Your task to perform on an android device: Open maps Image 0: 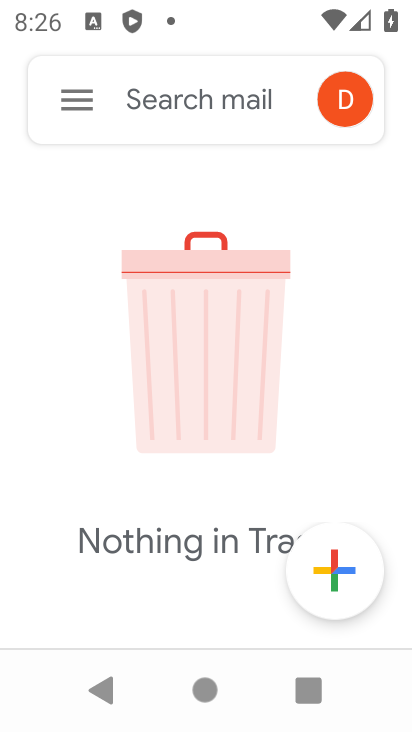
Step 0: press home button
Your task to perform on an android device: Open maps Image 1: 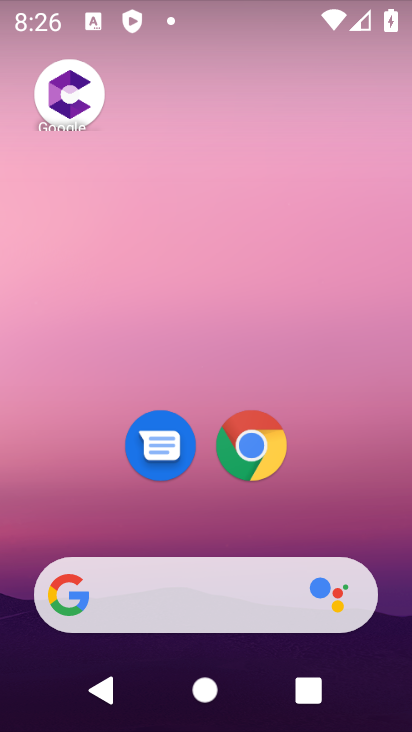
Step 1: drag from (45, 577) to (225, 155)
Your task to perform on an android device: Open maps Image 2: 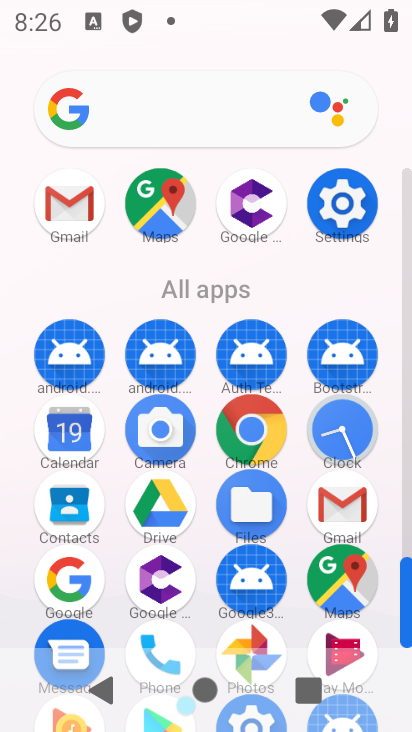
Step 2: click (148, 200)
Your task to perform on an android device: Open maps Image 3: 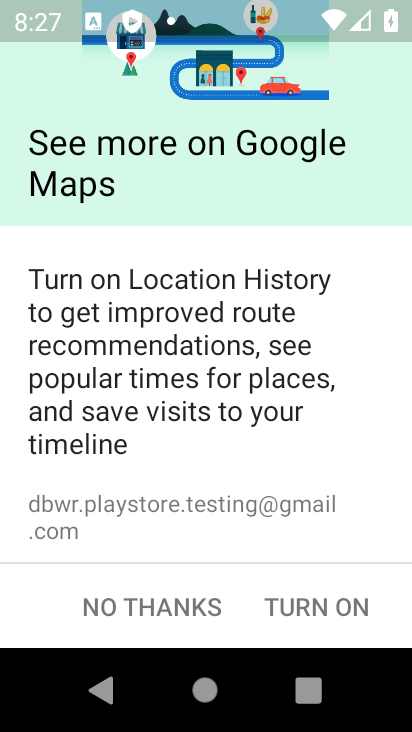
Step 3: click (127, 604)
Your task to perform on an android device: Open maps Image 4: 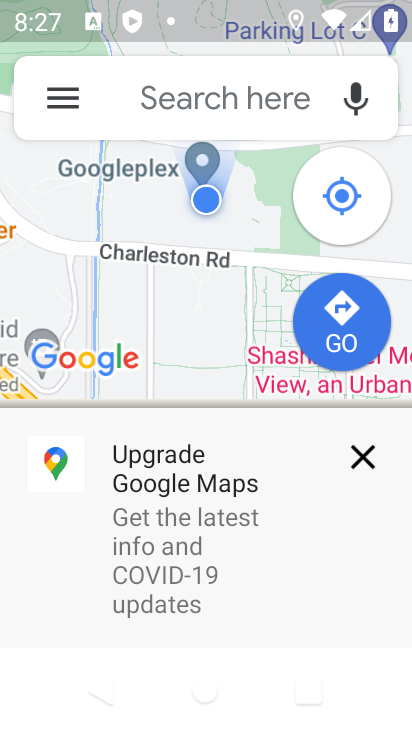
Step 4: task complete